Your task to perform on an android device: turn vacation reply on in the gmail app Image 0: 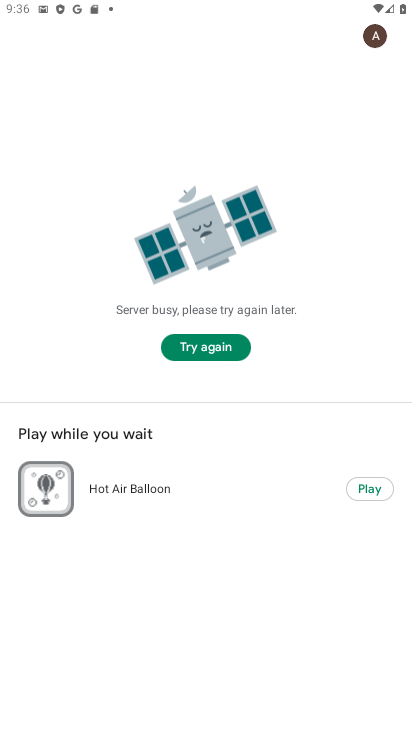
Step 0: press home button
Your task to perform on an android device: turn vacation reply on in the gmail app Image 1: 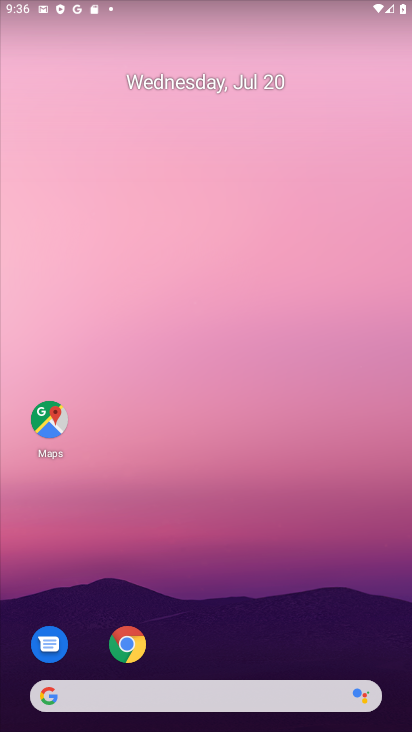
Step 1: drag from (226, 620) to (267, 284)
Your task to perform on an android device: turn vacation reply on in the gmail app Image 2: 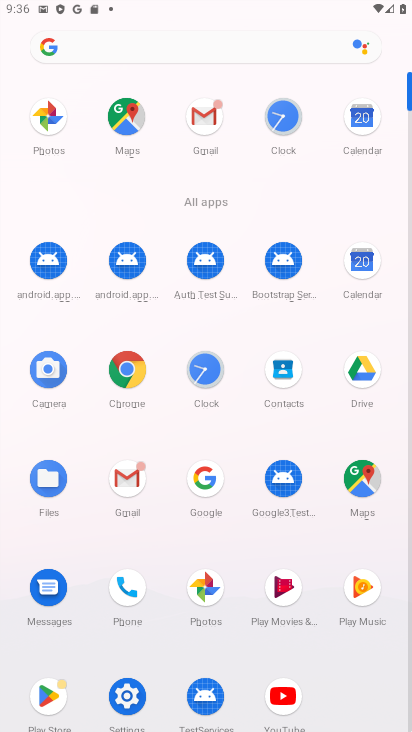
Step 2: click (125, 479)
Your task to perform on an android device: turn vacation reply on in the gmail app Image 3: 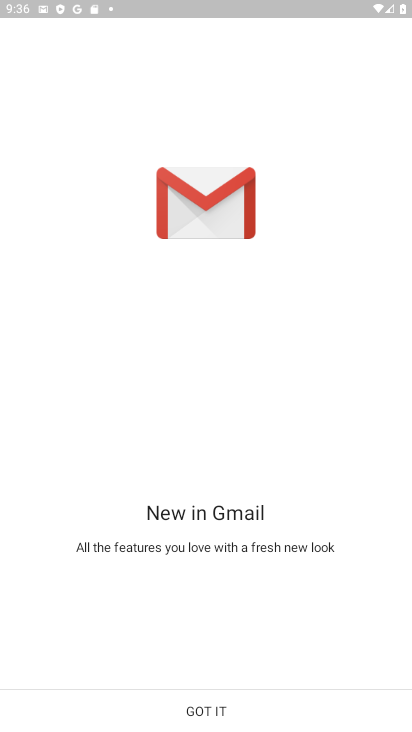
Step 3: click (203, 711)
Your task to perform on an android device: turn vacation reply on in the gmail app Image 4: 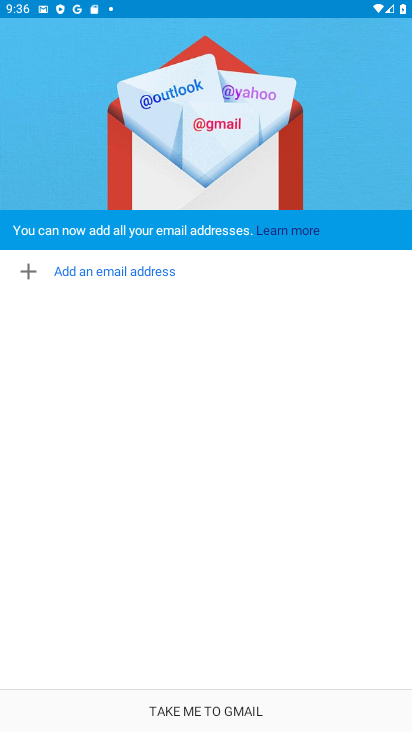
Step 4: click (203, 711)
Your task to perform on an android device: turn vacation reply on in the gmail app Image 5: 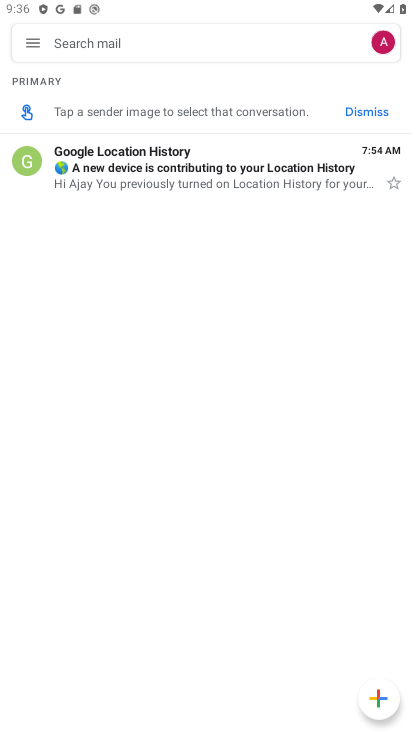
Step 5: click (33, 50)
Your task to perform on an android device: turn vacation reply on in the gmail app Image 6: 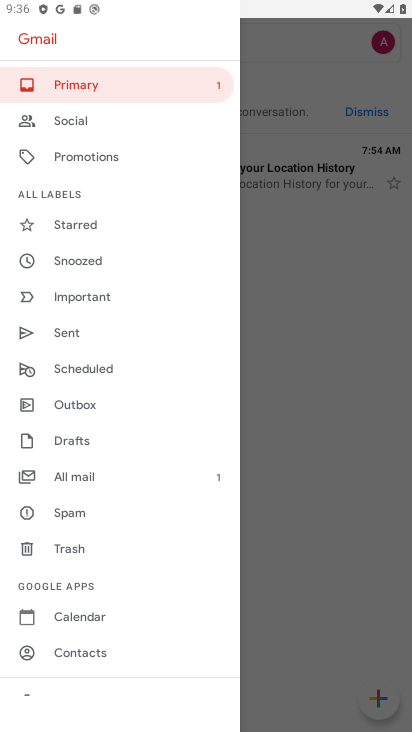
Step 6: drag from (135, 584) to (170, 413)
Your task to perform on an android device: turn vacation reply on in the gmail app Image 7: 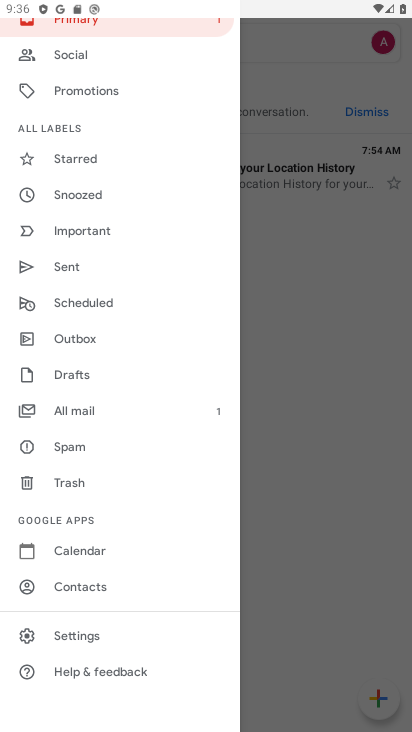
Step 7: click (85, 643)
Your task to perform on an android device: turn vacation reply on in the gmail app Image 8: 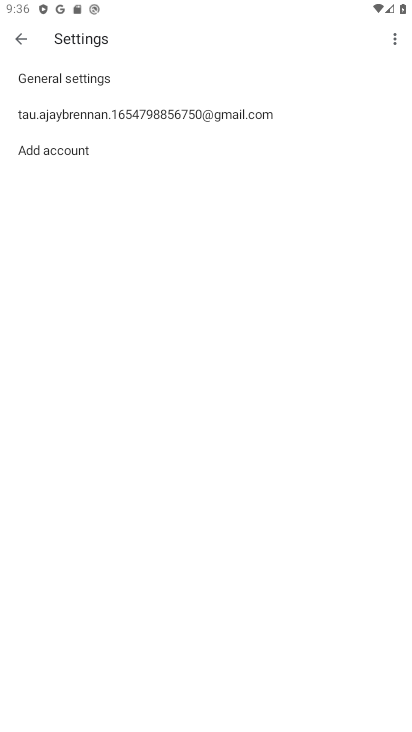
Step 8: click (47, 75)
Your task to perform on an android device: turn vacation reply on in the gmail app Image 9: 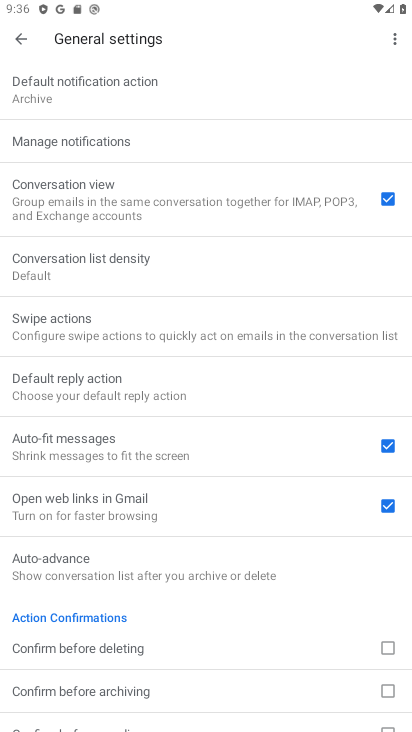
Step 9: task complete